Your task to perform on an android device: check storage Image 0: 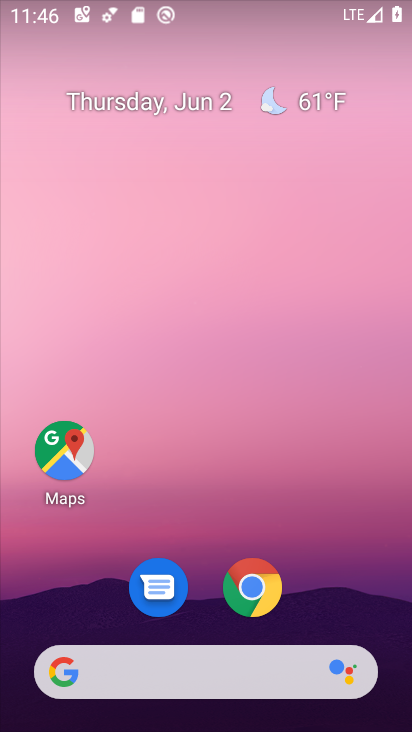
Step 0: drag from (236, 537) to (246, 1)
Your task to perform on an android device: check storage Image 1: 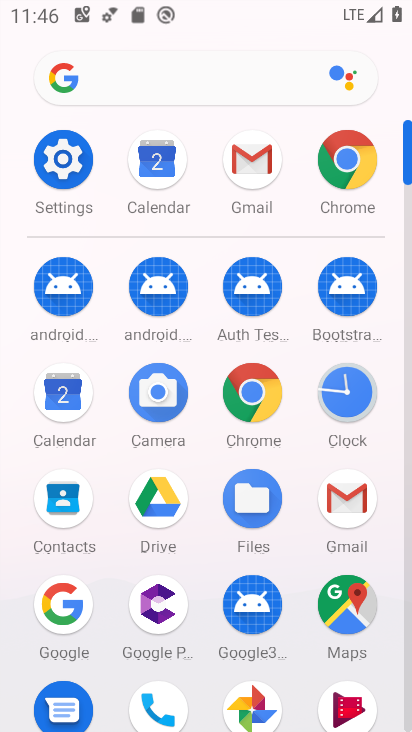
Step 1: click (75, 169)
Your task to perform on an android device: check storage Image 2: 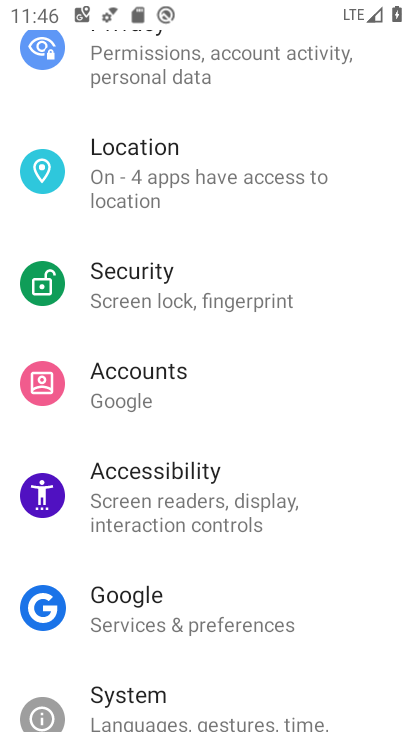
Step 2: drag from (232, 239) to (250, 657)
Your task to perform on an android device: check storage Image 3: 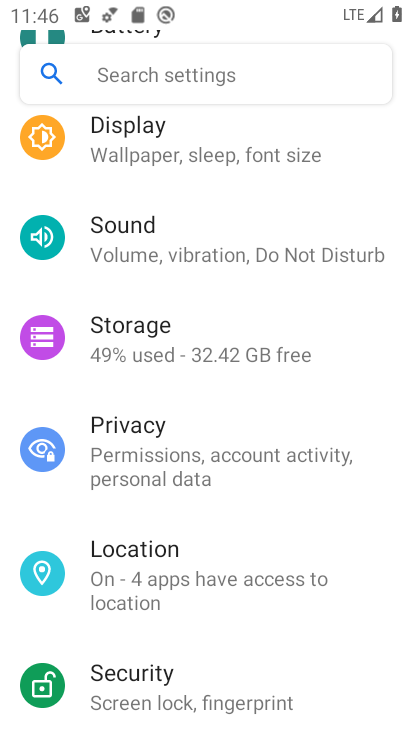
Step 3: click (186, 346)
Your task to perform on an android device: check storage Image 4: 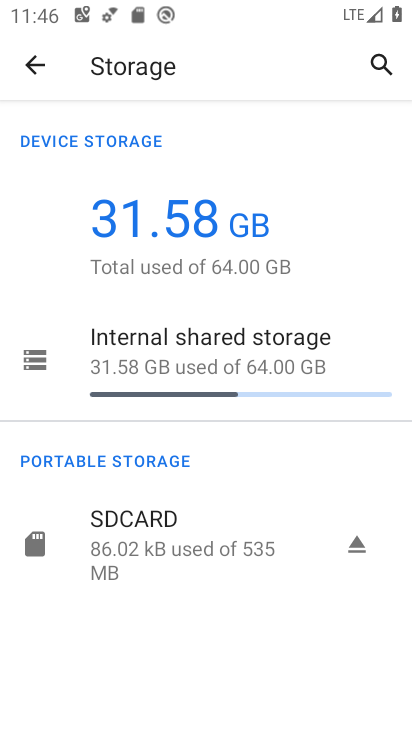
Step 4: task complete